Your task to perform on an android device: Go to Wikipedia Image 0: 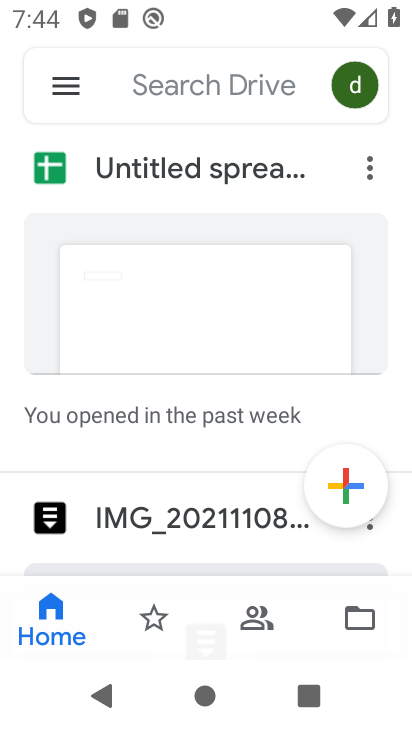
Step 0: press back button
Your task to perform on an android device: Go to Wikipedia Image 1: 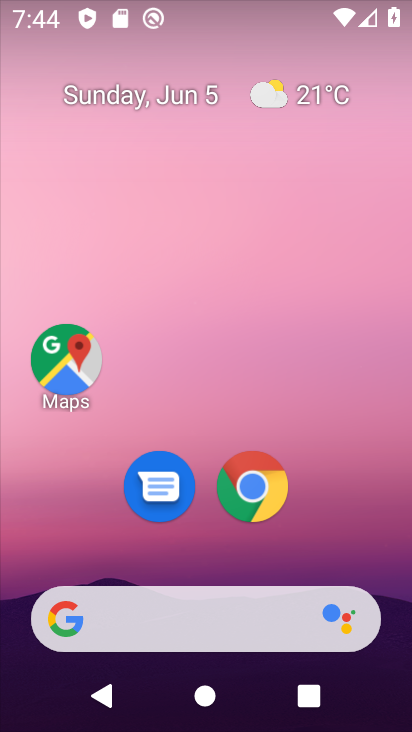
Step 1: click (269, 483)
Your task to perform on an android device: Go to Wikipedia Image 2: 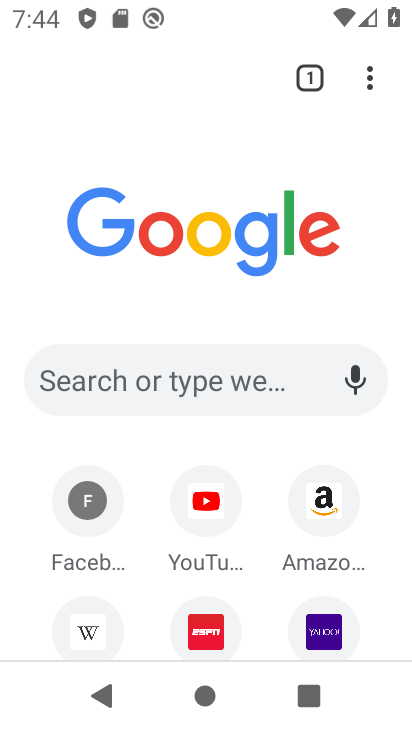
Step 2: drag from (192, 571) to (261, 179)
Your task to perform on an android device: Go to Wikipedia Image 3: 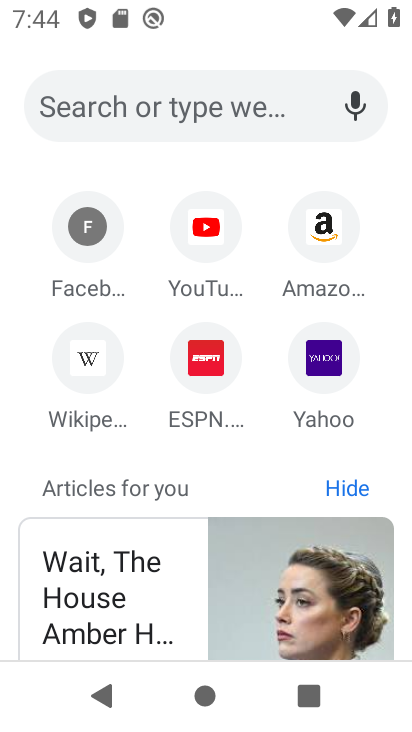
Step 3: click (79, 372)
Your task to perform on an android device: Go to Wikipedia Image 4: 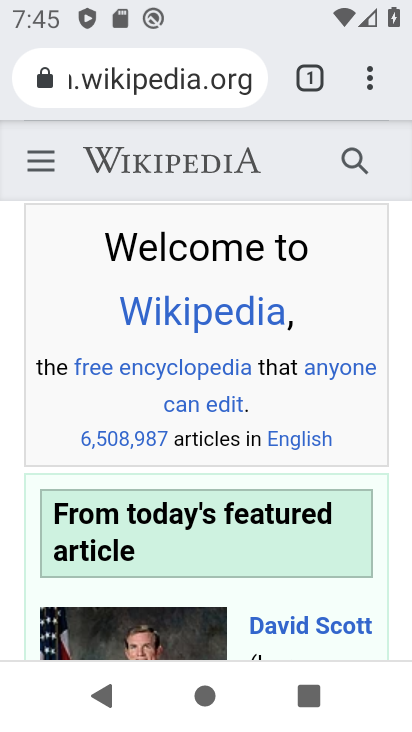
Step 4: task complete